Your task to perform on an android device: Do I have any events today? Image 0: 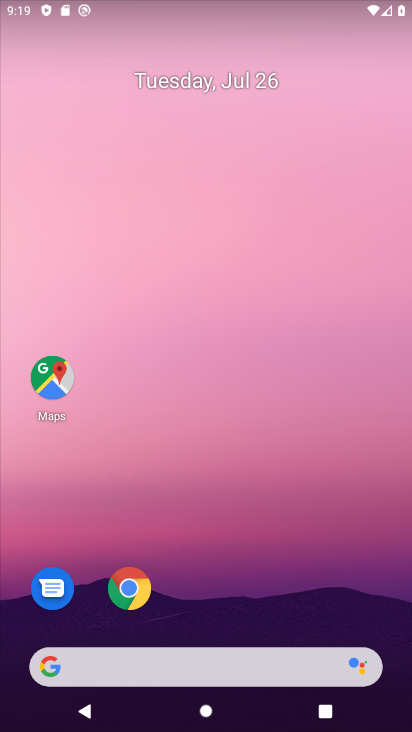
Step 0: drag from (203, 645) to (182, 155)
Your task to perform on an android device: Do I have any events today? Image 1: 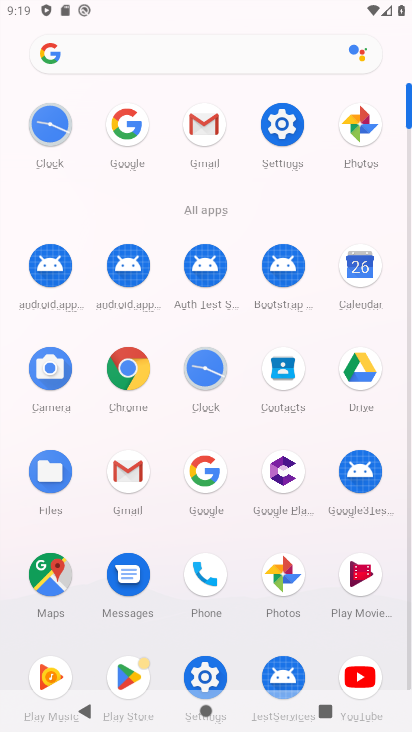
Step 1: click (345, 276)
Your task to perform on an android device: Do I have any events today? Image 2: 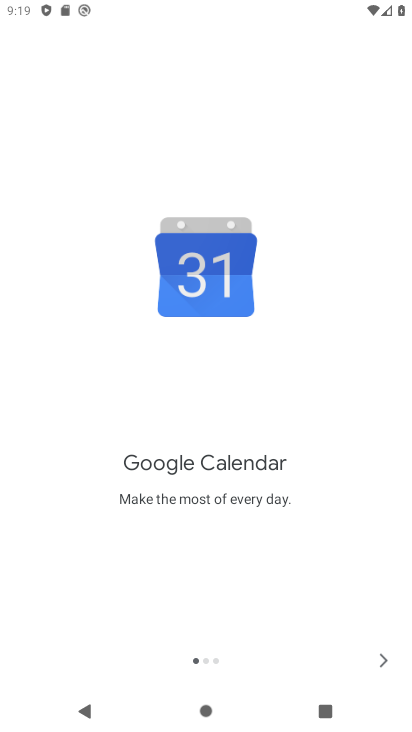
Step 2: click (379, 657)
Your task to perform on an android device: Do I have any events today? Image 3: 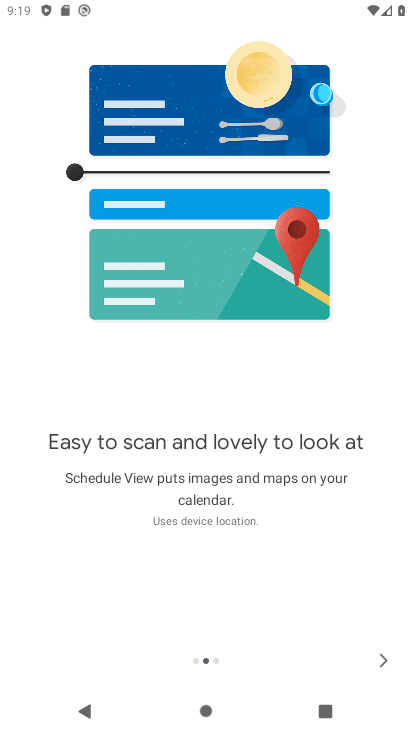
Step 3: click (379, 657)
Your task to perform on an android device: Do I have any events today? Image 4: 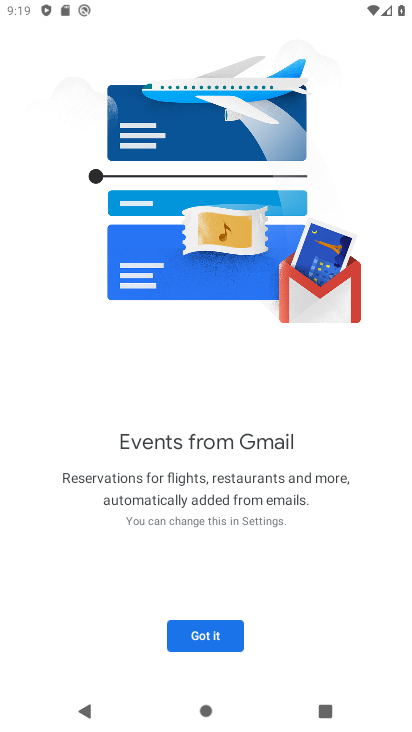
Step 4: click (202, 641)
Your task to perform on an android device: Do I have any events today? Image 5: 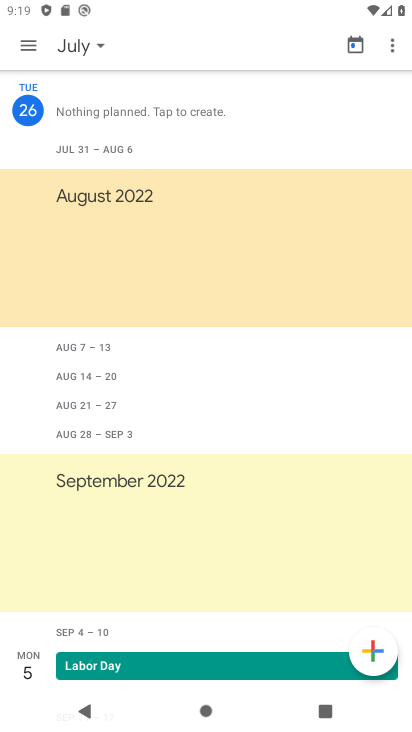
Step 5: click (87, 51)
Your task to perform on an android device: Do I have any events today? Image 6: 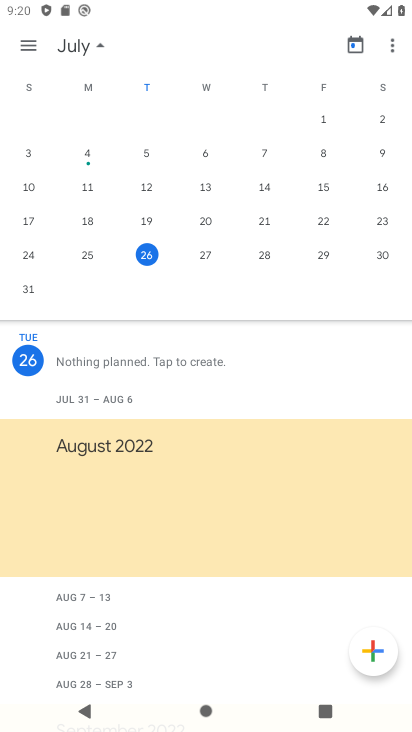
Step 6: click (204, 252)
Your task to perform on an android device: Do I have any events today? Image 7: 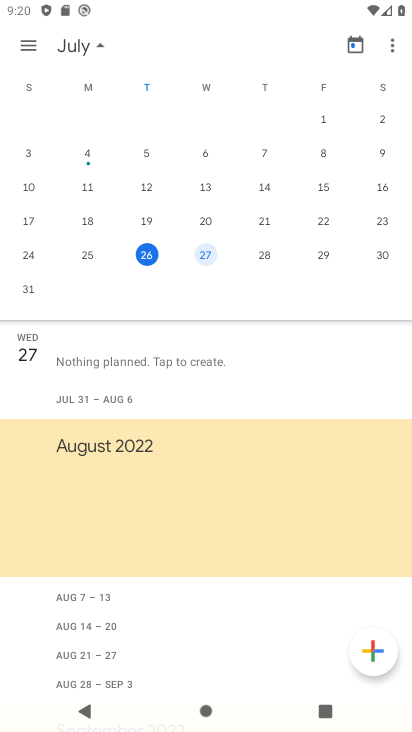
Step 7: click (144, 251)
Your task to perform on an android device: Do I have any events today? Image 8: 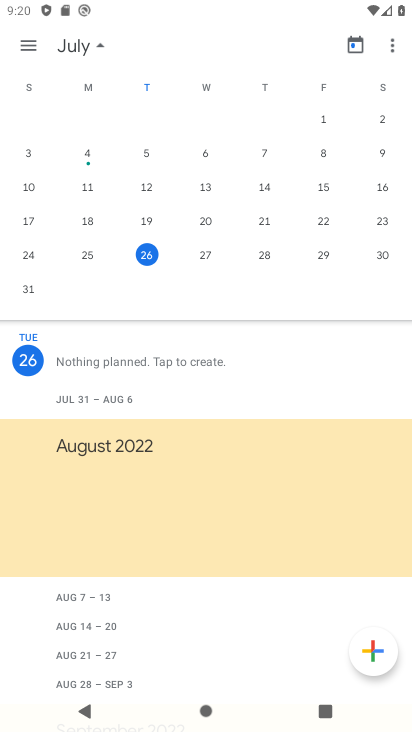
Step 8: task complete